Your task to perform on an android device: delete a single message in the gmail app Image 0: 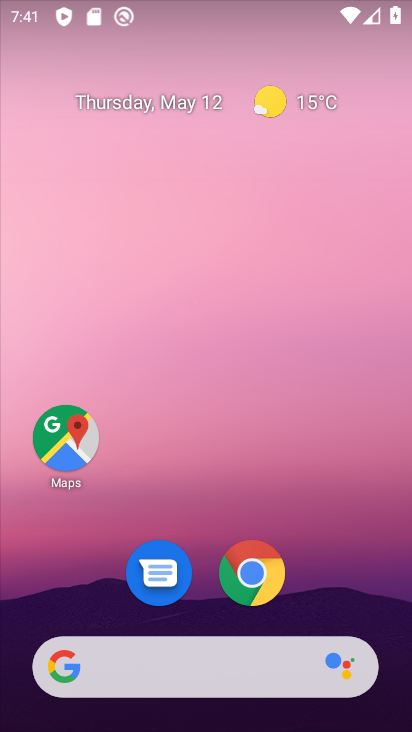
Step 0: drag from (319, 576) to (308, 15)
Your task to perform on an android device: delete a single message in the gmail app Image 1: 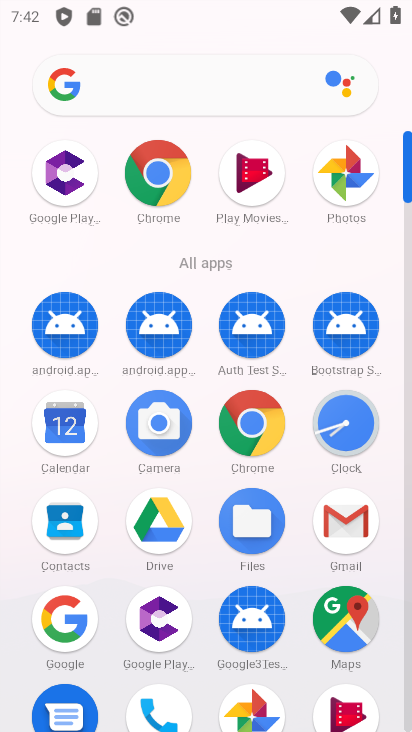
Step 1: click (344, 520)
Your task to perform on an android device: delete a single message in the gmail app Image 2: 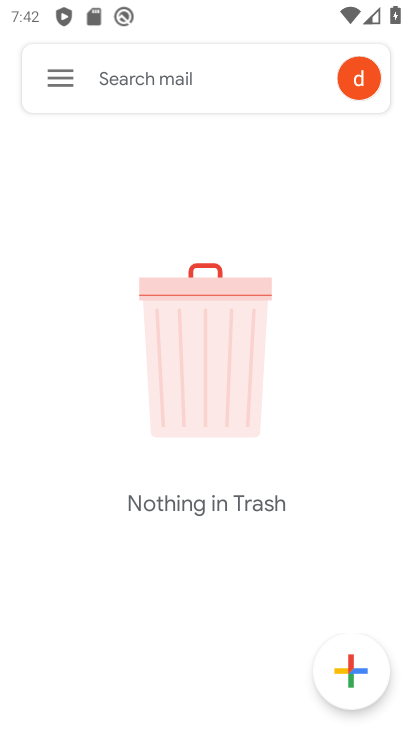
Step 2: click (51, 83)
Your task to perform on an android device: delete a single message in the gmail app Image 3: 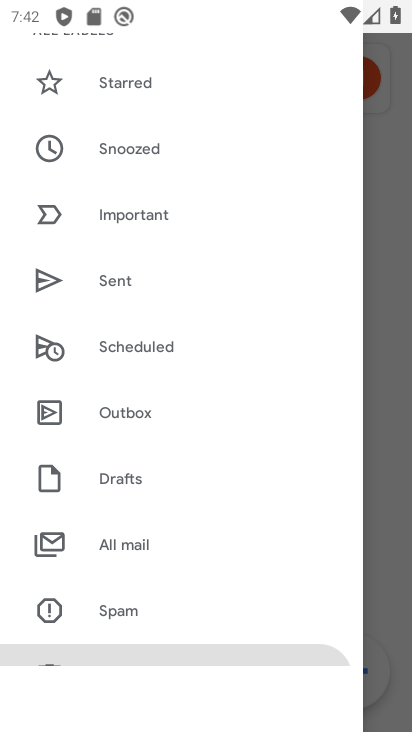
Step 3: click (123, 540)
Your task to perform on an android device: delete a single message in the gmail app Image 4: 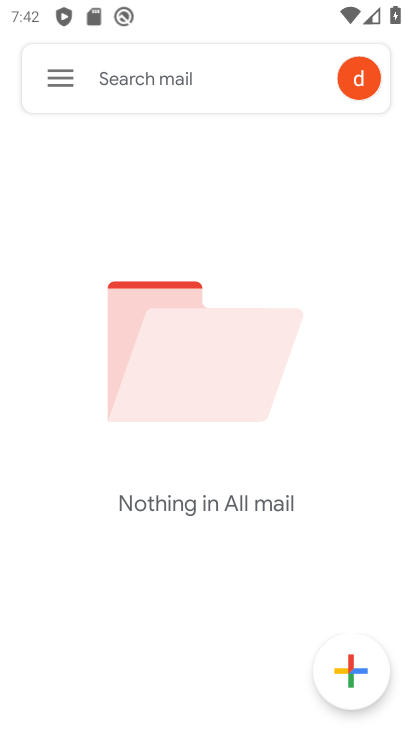
Step 4: task complete